Your task to perform on an android device: Search for seafood restaurants on Google Maps Image 0: 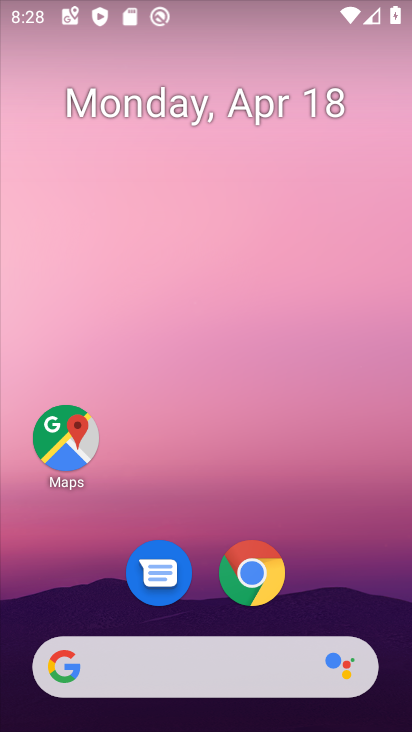
Step 0: click (59, 430)
Your task to perform on an android device: Search for seafood restaurants on Google Maps Image 1: 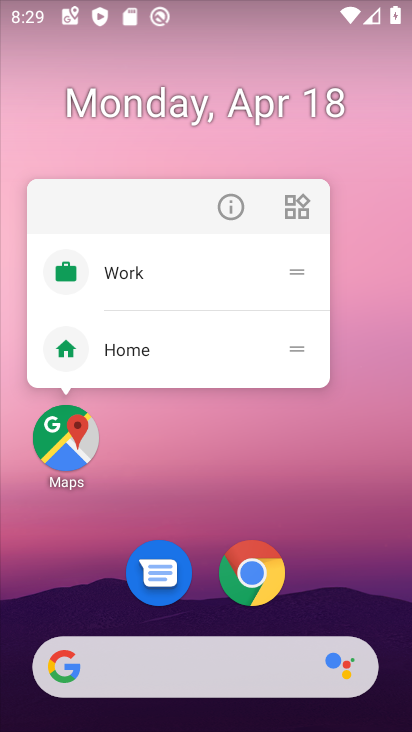
Step 1: click (218, 462)
Your task to perform on an android device: Search for seafood restaurants on Google Maps Image 2: 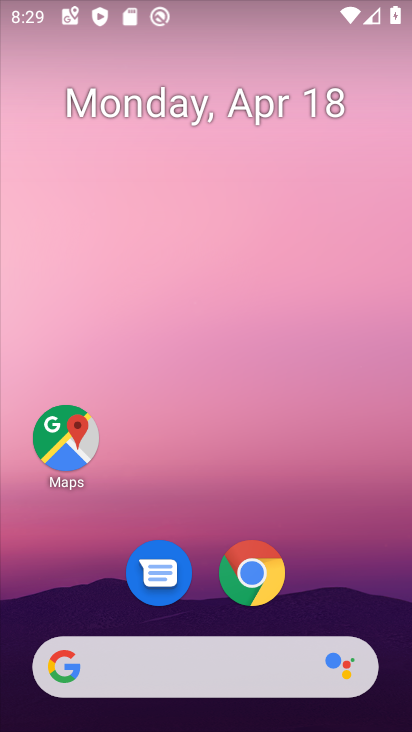
Step 2: click (95, 447)
Your task to perform on an android device: Search for seafood restaurants on Google Maps Image 3: 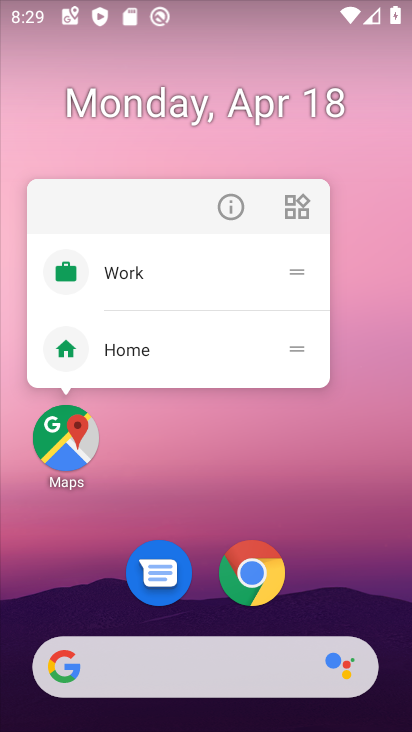
Step 3: click (82, 446)
Your task to perform on an android device: Search for seafood restaurants on Google Maps Image 4: 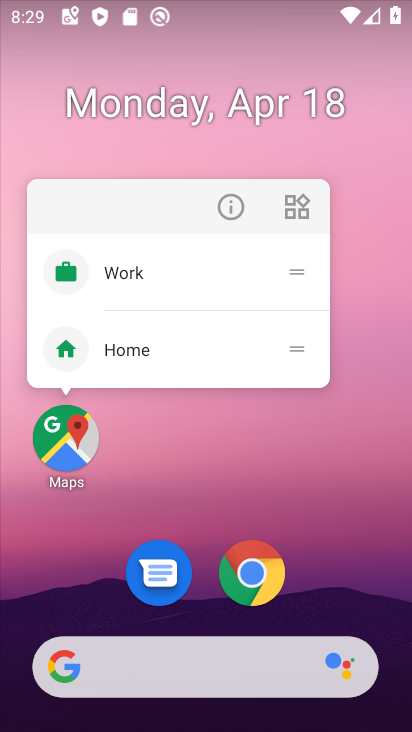
Step 4: click (57, 455)
Your task to perform on an android device: Search for seafood restaurants on Google Maps Image 5: 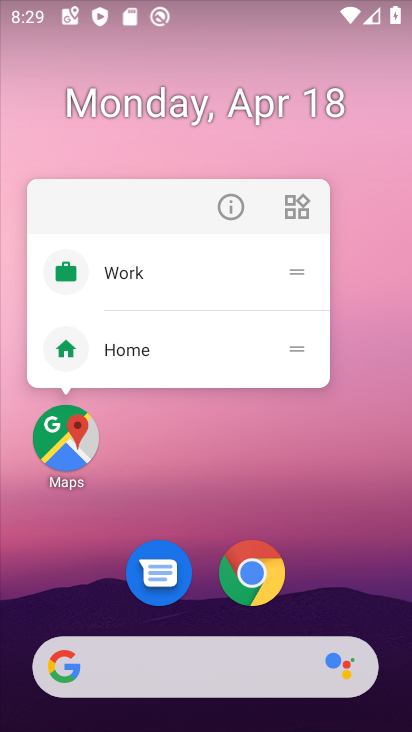
Step 5: click (75, 435)
Your task to perform on an android device: Search for seafood restaurants on Google Maps Image 6: 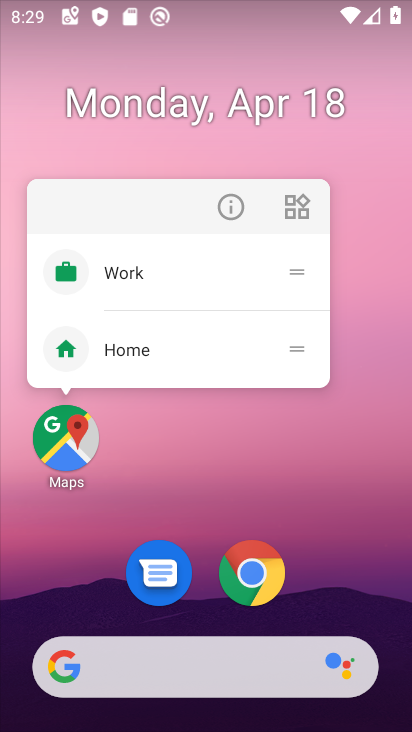
Step 6: click (83, 438)
Your task to perform on an android device: Search for seafood restaurants on Google Maps Image 7: 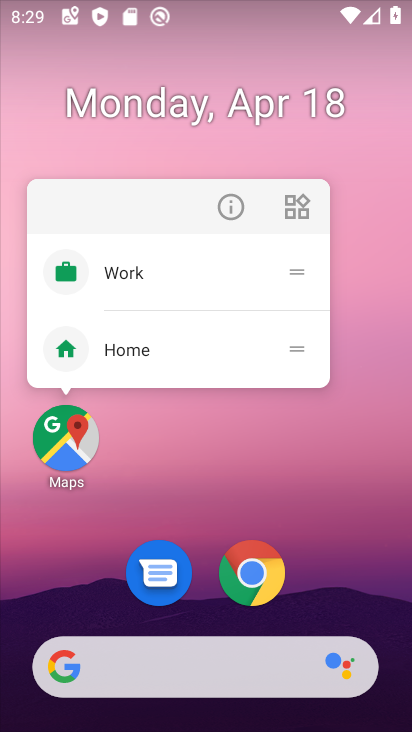
Step 7: click (180, 470)
Your task to perform on an android device: Search for seafood restaurants on Google Maps Image 8: 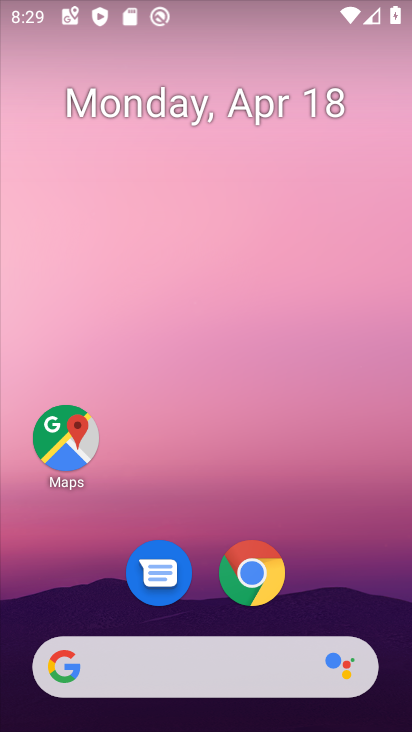
Step 8: click (67, 449)
Your task to perform on an android device: Search for seafood restaurants on Google Maps Image 9: 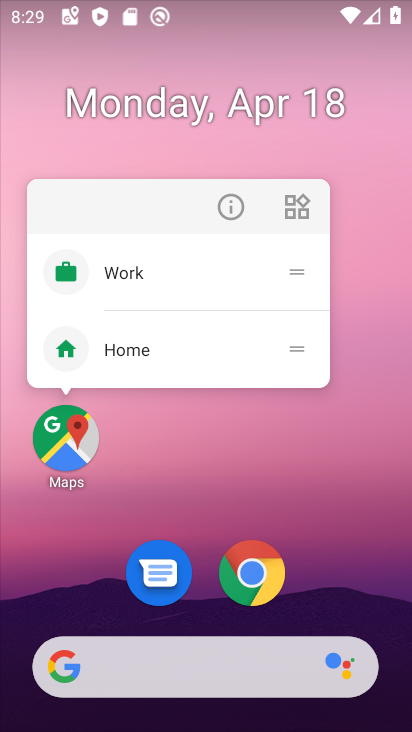
Step 9: click (98, 457)
Your task to perform on an android device: Search for seafood restaurants on Google Maps Image 10: 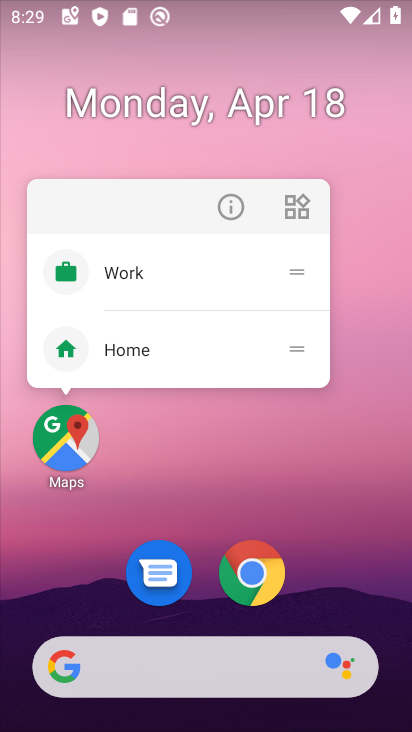
Step 10: click (81, 457)
Your task to perform on an android device: Search for seafood restaurants on Google Maps Image 11: 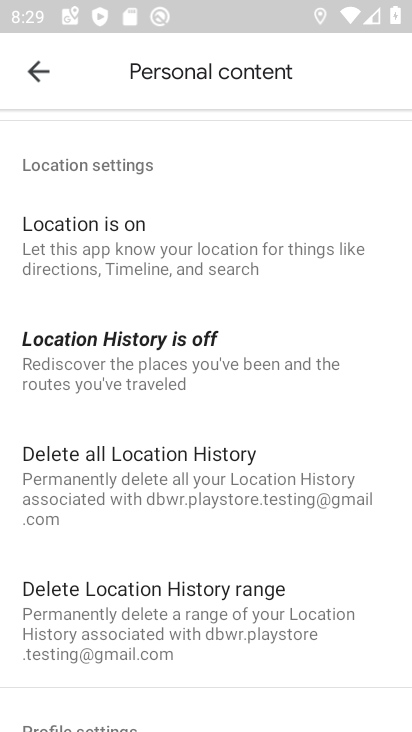
Step 11: press back button
Your task to perform on an android device: Search for seafood restaurants on Google Maps Image 12: 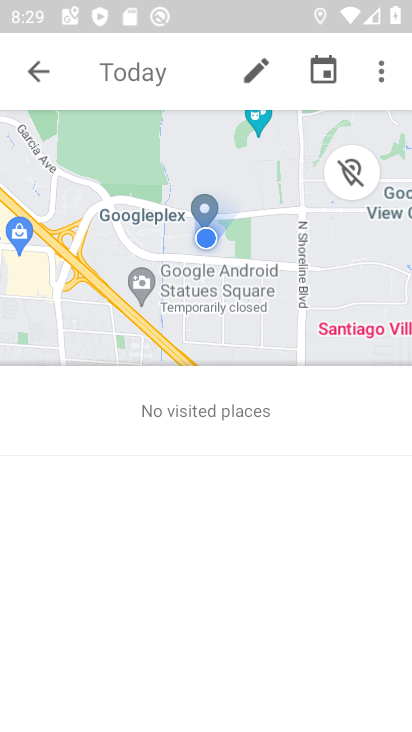
Step 12: press back button
Your task to perform on an android device: Search for seafood restaurants on Google Maps Image 13: 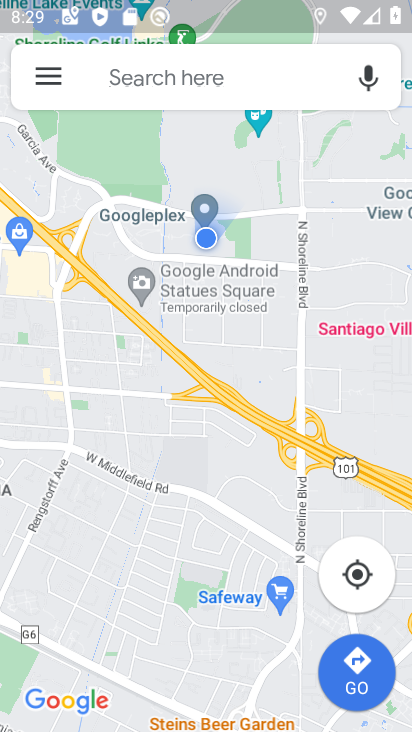
Step 13: click (151, 84)
Your task to perform on an android device: Search for seafood restaurants on Google Maps Image 14: 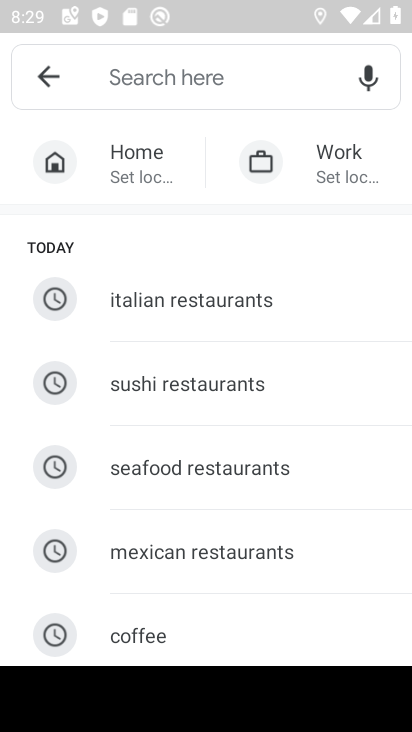
Step 14: click (255, 466)
Your task to perform on an android device: Search for seafood restaurants on Google Maps Image 15: 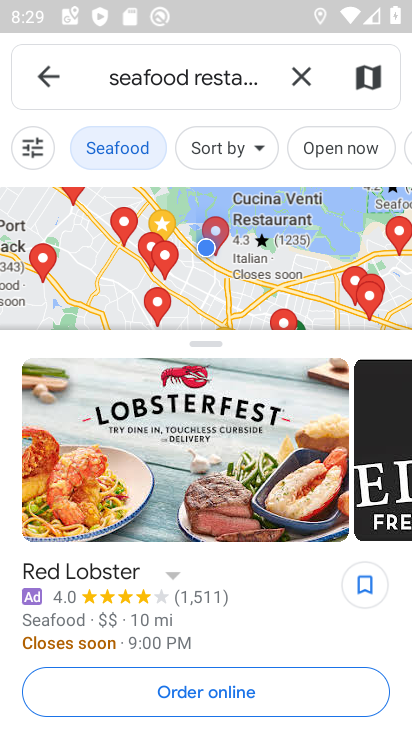
Step 15: task complete